Your task to perform on an android device: visit the assistant section in the google photos Image 0: 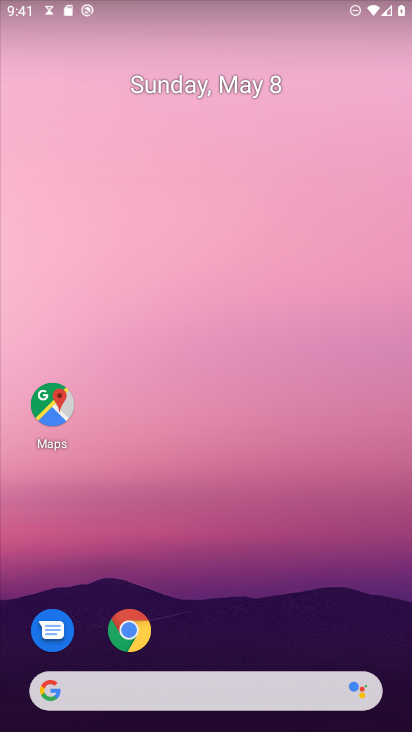
Step 0: drag from (135, 692) to (327, 150)
Your task to perform on an android device: visit the assistant section in the google photos Image 1: 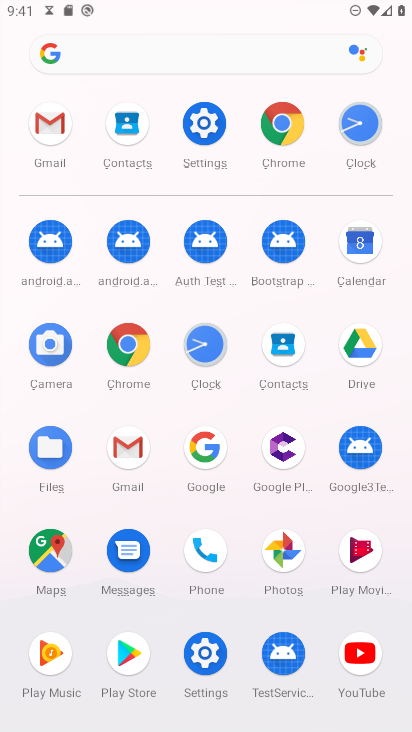
Step 1: click (283, 553)
Your task to perform on an android device: visit the assistant section in the google photos Image 2: 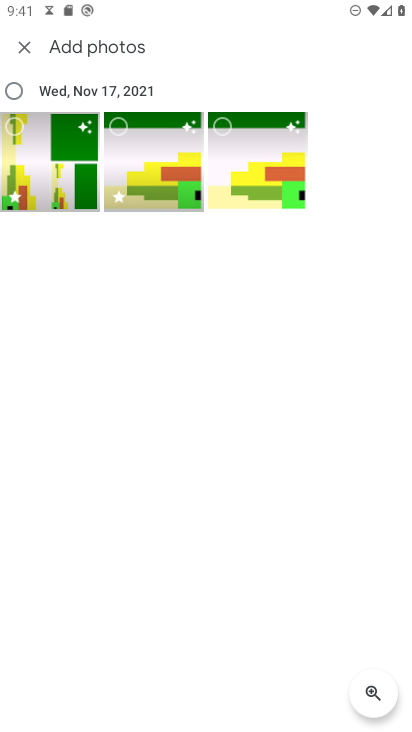
Step 2: click (26, 44)
Your task to perform on an android device: visit the assistant section in the google photos Image 3: 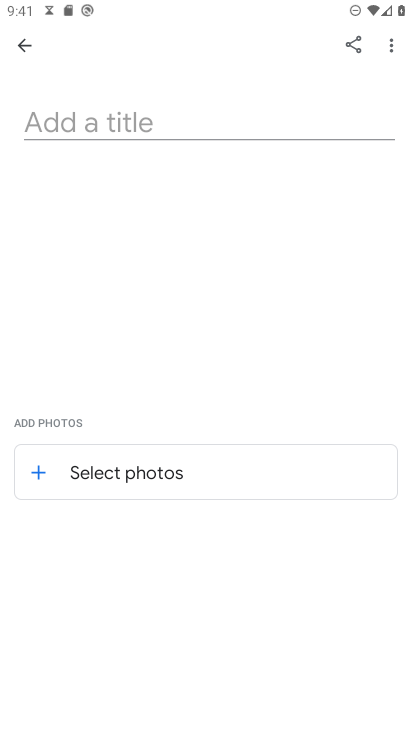
Step 3: click (26, 52)
Your task to perform on an android device: visit the assistant section in the google photos Image 4: 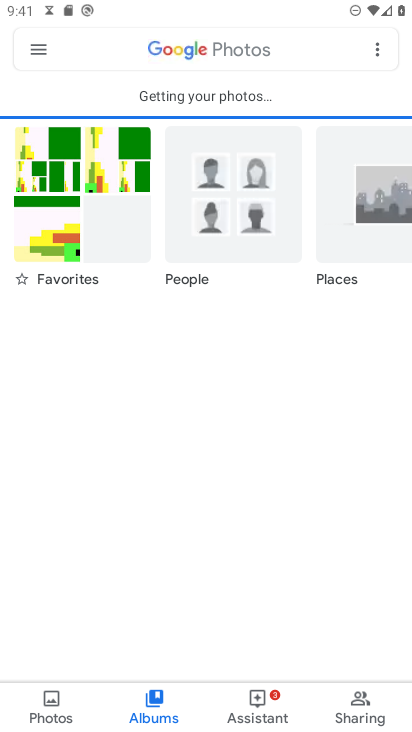
Step 4: click (253, 706)
Your task to perform on an android device: visit the assistant section in the google photos Image 5: 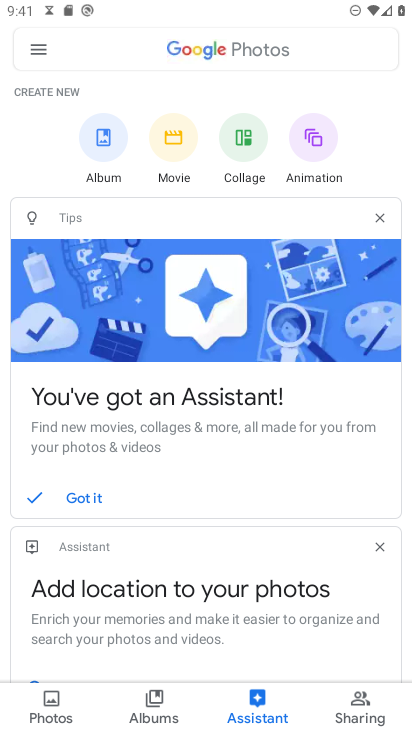
Step 5: task complete